Your task to perform on an android device: turn on javascript in the chrome app Image 0: 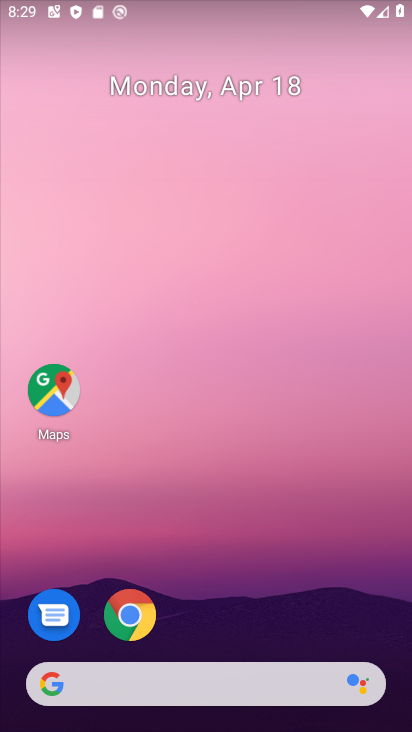
Step 0: click (127, 612)
Your task to perform on an android device: turn on javascript in the chrome app Image 1: 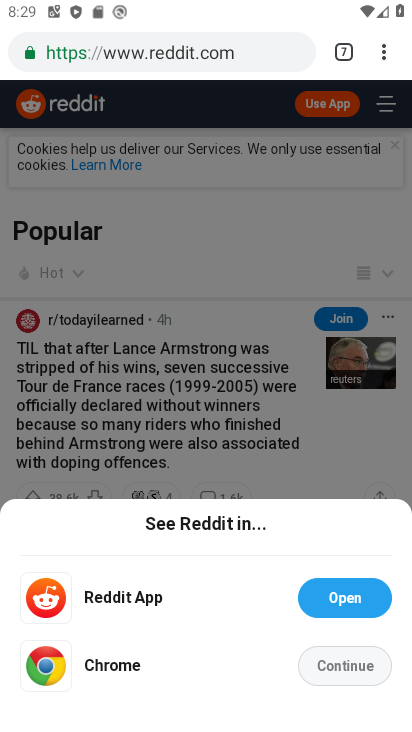
Step 1: click (385, 46)
Your task to perform on an android device: turn on javascript in the chrome app Image 2: 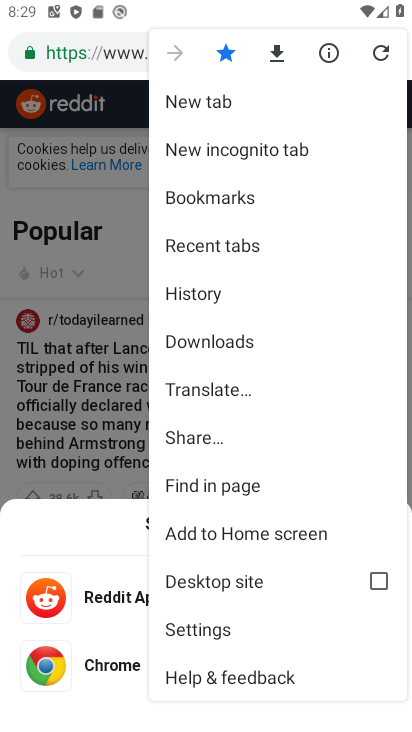
Step 2: click (209, 631)
Your task to perform on an android device: turn on javascript in the chrome app Image 3: 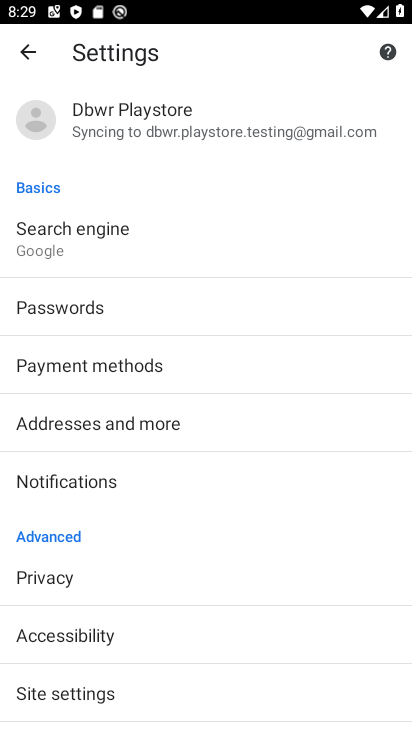
Step 3: click (138, 680)
Your task to perform on an android device: turn on javascript in the chrome app Image 4: 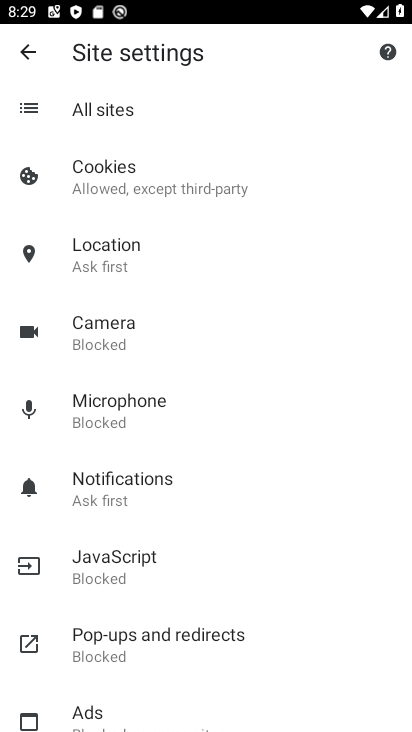
Step 4: click (201, 565)
Your task to perform on an android device: turn on javascript in the chrome app Image 5: 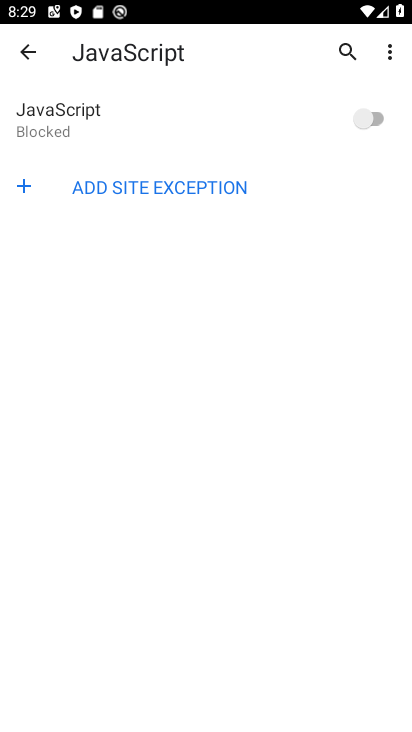
Step 5: click (377, 117)
Your task to perform on an android device: turn on javascript in the chrome app Image 6: 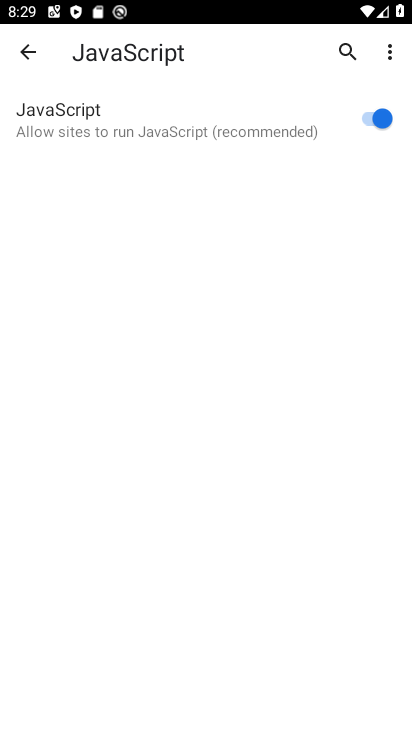
Step 6: task complete